Your task to perform on an android device: turn off notifications in google photos Image 0: 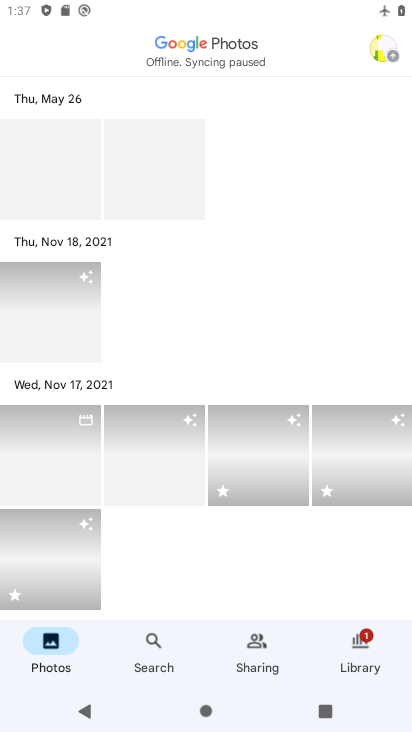
Step 0: click (388, 47)
Your task to perform on an android device: turn off notifications in google photos Image 1: 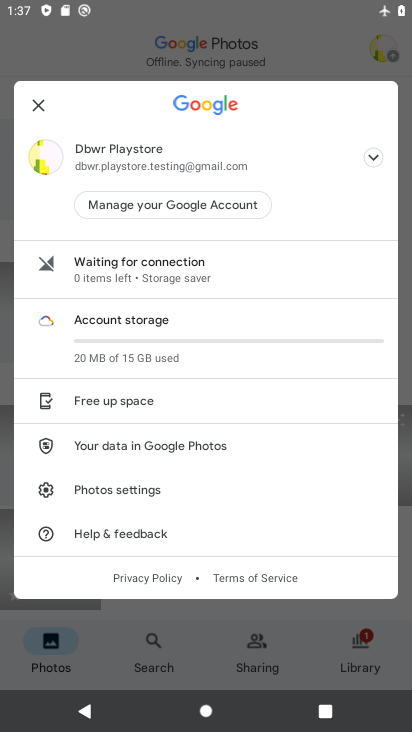
Step 1: click (147, 490)
Your task to perform on an android device: turn off notifications in google photos Image 2: 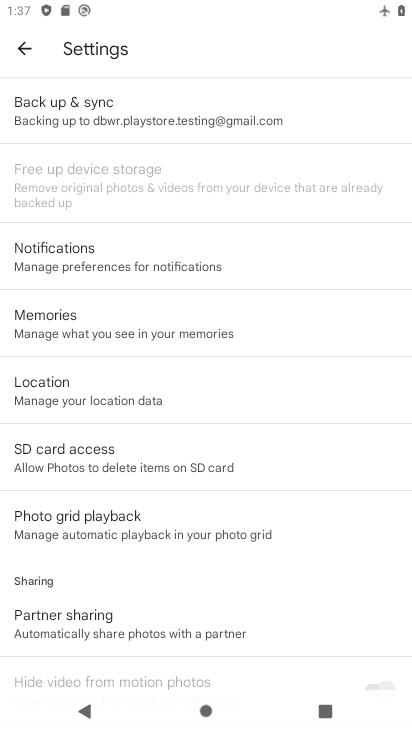
Step 2: click (229, 241)
Your task to perform on an android device: turn off notifications in google photos Image 3: 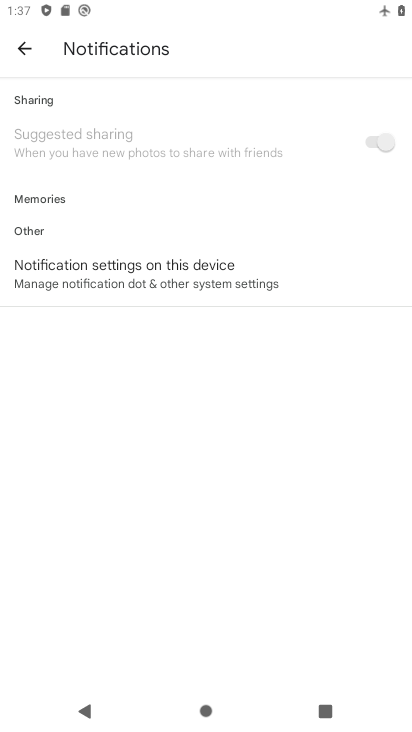
Step 3: click (238, 273)
Your task to perform on an android device: turn off notifications in google photos Image 4: 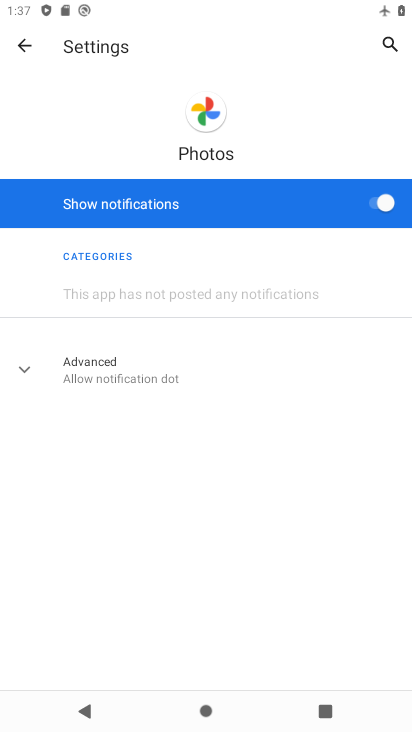
Step 4: click (397, 207)
Your task to perform on an android device: turn off notifications in google photos Image 5: 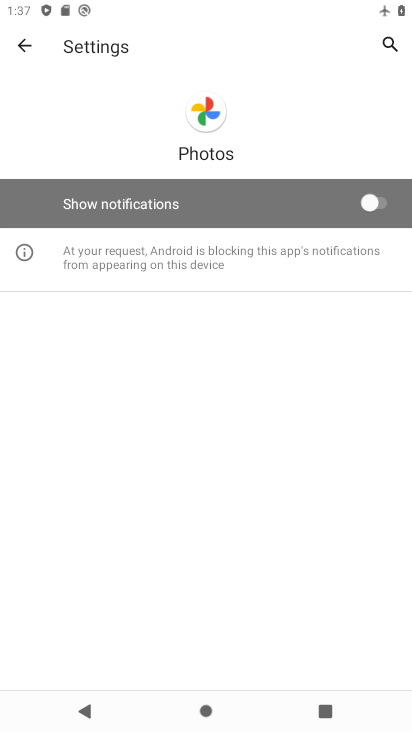
Step 5: task complete